Your task to perform on an android device: toggle notifications settings in the gmail app Image 0: 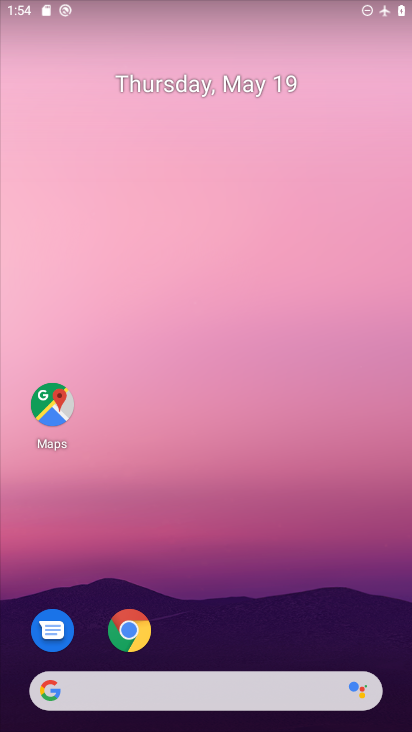
Step 0: drag from (216, 661) to (146, 681)
Your task to perform on an android device: toggle notifications settings in the gmail app Image 1: 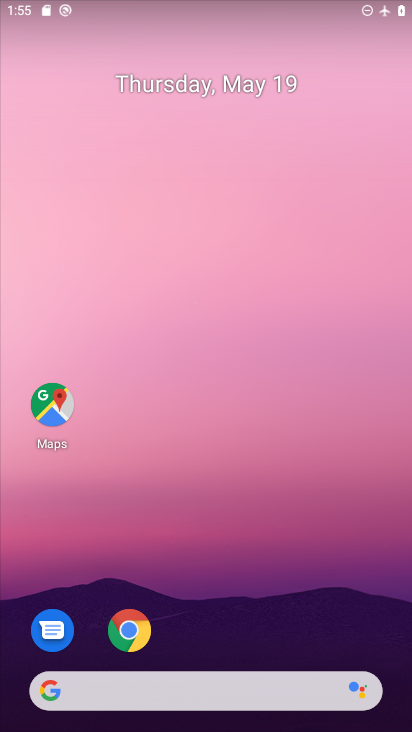
Step 1: drag from (215, 658) to (177, 73)
Your task to perform on an android device: toggle notifications settings in the gmail app Image 2: 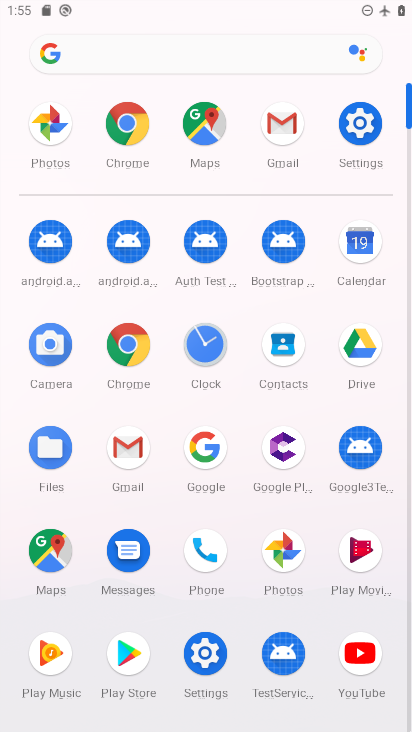
Step 2: click (127, 463)
Your task to perform on an android device: toggle notifications settings in the gmail app Image 3: 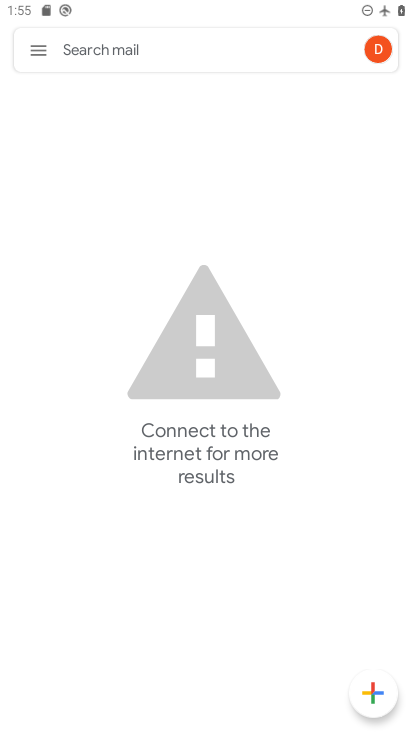
Step 3: click (30, 49)
Your task to perform on an android device: toggle notifications settings in the gmail app Image 4: 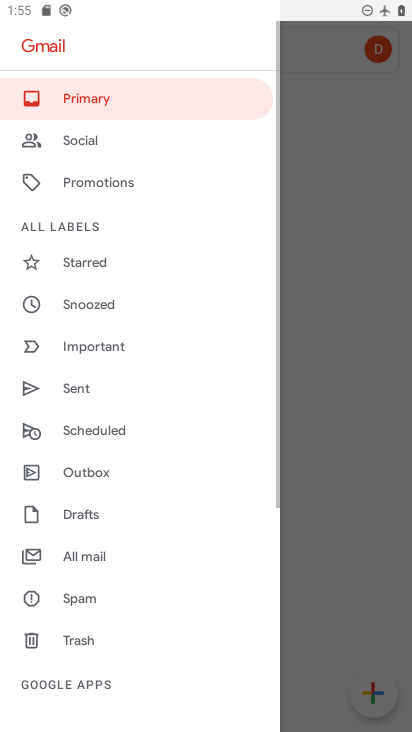
Step 4: drag from (134, 564) to (113, 98)
Your task to perform on an android device: toggle notifications settings in the gmail app Image 5: 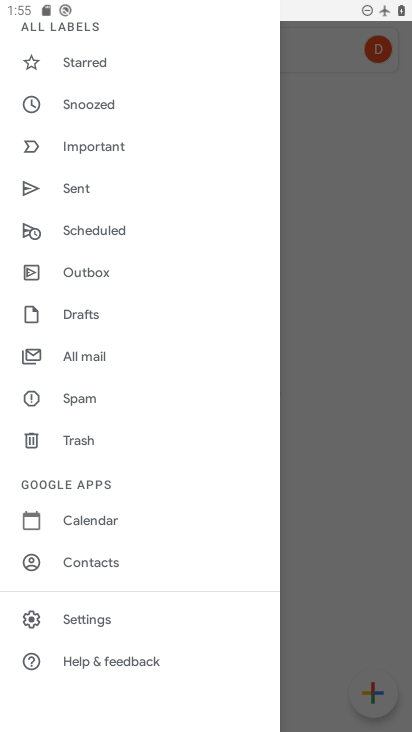
Step 5: click (76, 622)
Your task to perform on an android device: toggle notifications settings in the gmail app Image 6: 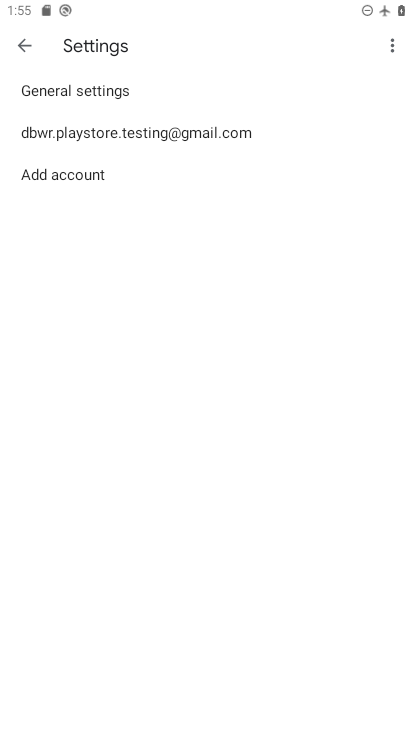
Step 6: click (66, 98)
Your task to perform on an android device: toggle notifications settings in the gmail app Image 7: 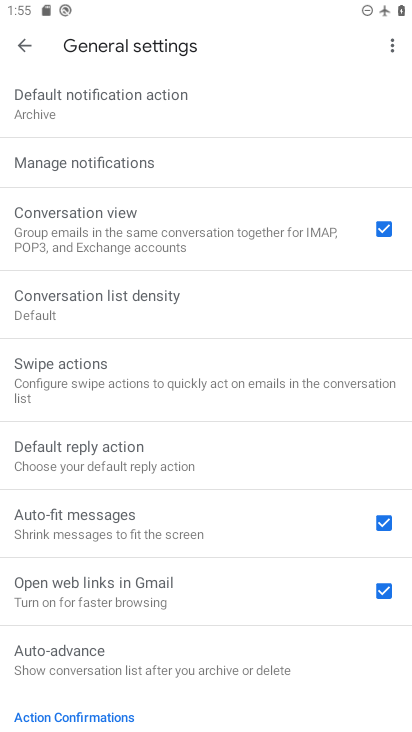
Step 7: click (81, 151)
Your task to perform on an android device: toggle notifications settings in the gmail app Image 8: 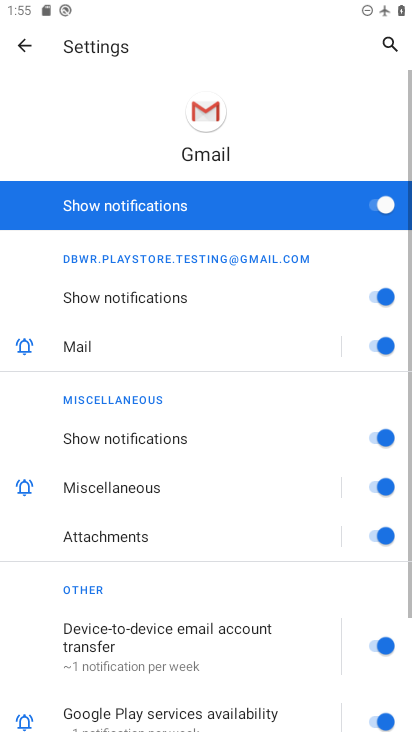
Step 8: click (388, 201)
Your task to perform on an android device: toggle notifications settings in the gmail app Image 9: 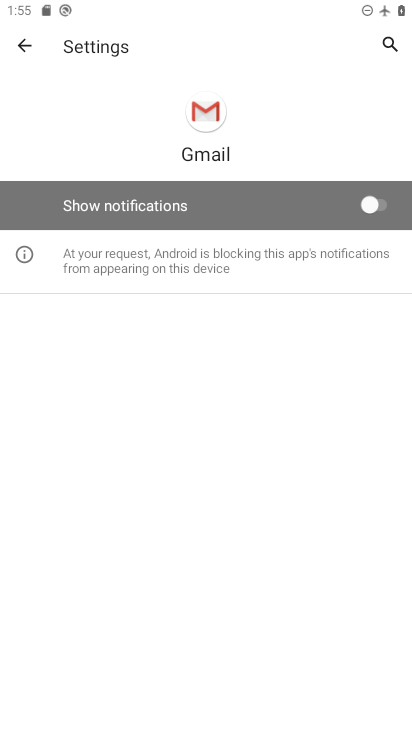
Step 9: task complete